Your task to perform on an android device: Go to Google Image 0: 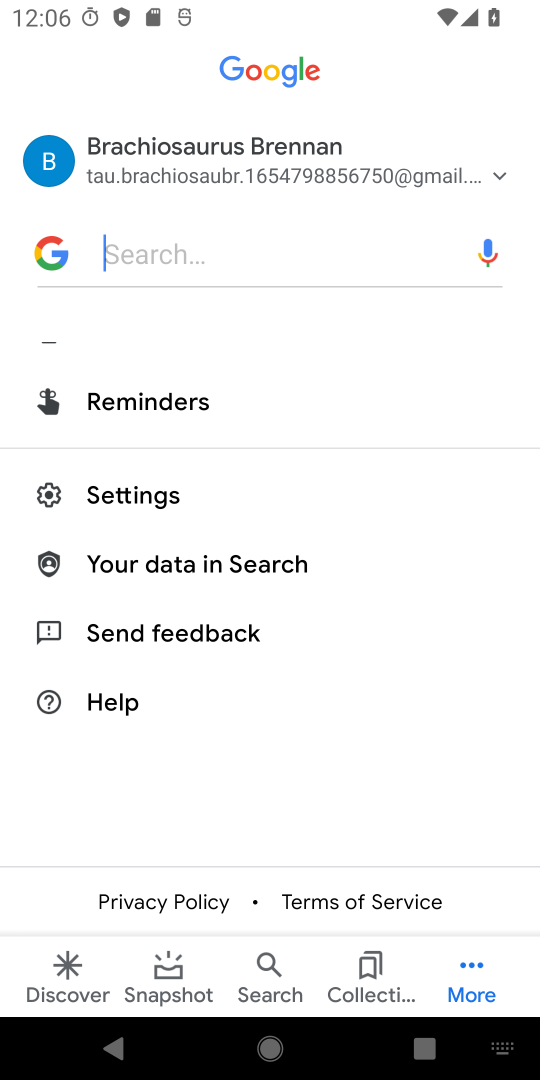
Step 0: press home button
Your task to perform on an android device: Go to Google Image 1: 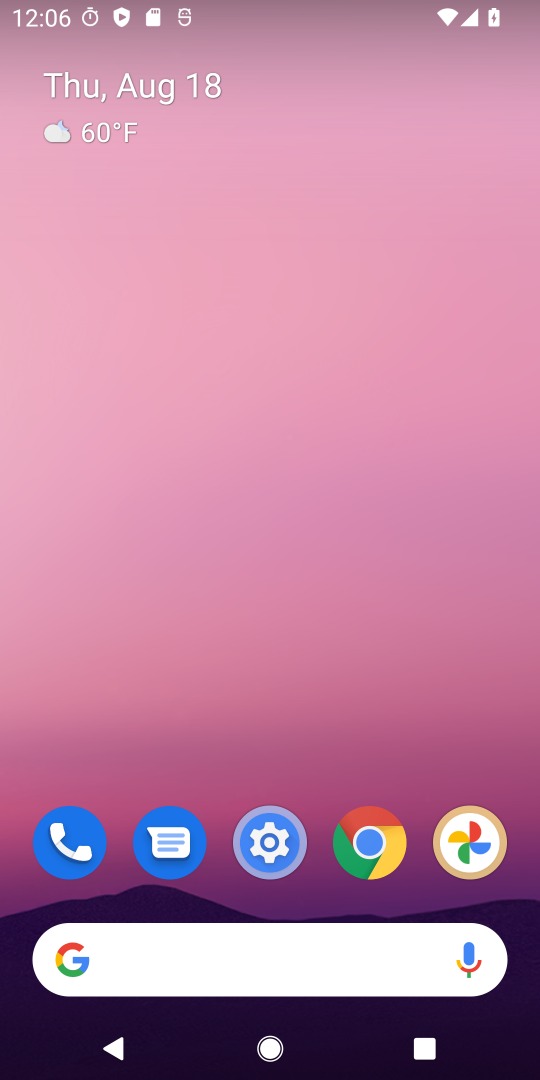
Step 1: click (189, 945)
Your task to perform on an android device: Go to Google Image 2: 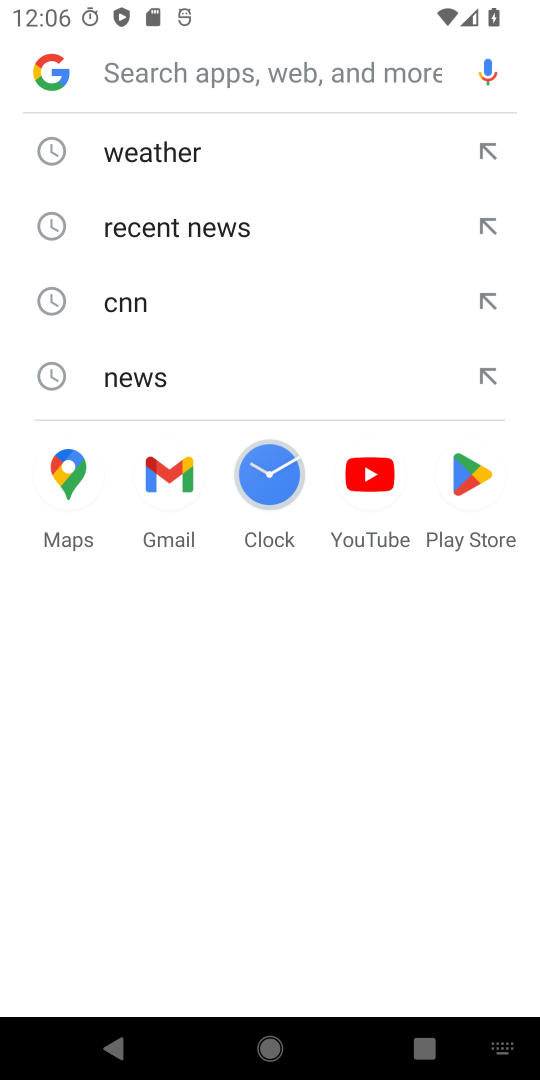
Step 2: click (67, 67)
Your task to perform on an android device: Go to Google Image 3: 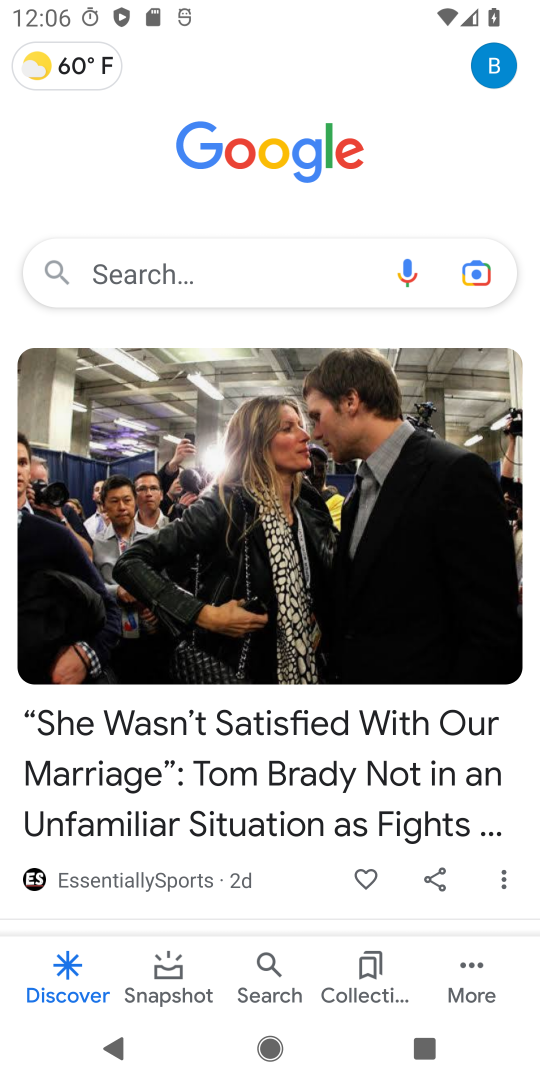
Step 3: task complete